Your task to perform on an android device: Go to settings Image 0: 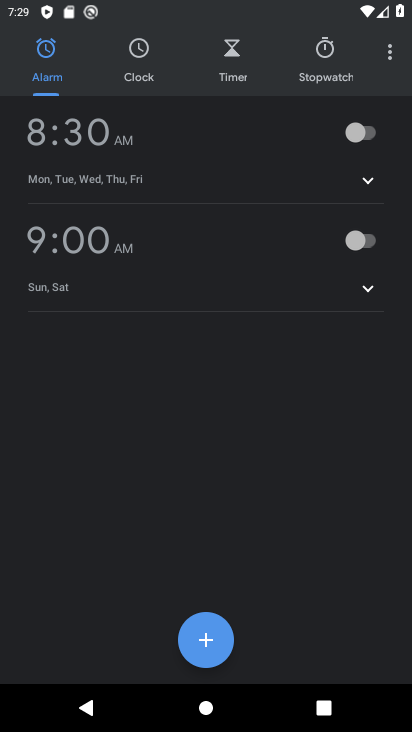
Step 0: press back button
Your task to perform on an android device: Go to settings Image 1: 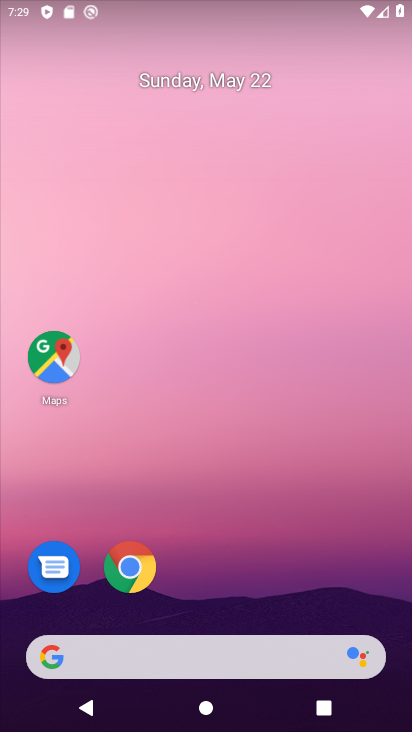
Step 1: drag from (163, 657) to (310, 127)
Your task to perform on an android device: Go to settings Image 2: 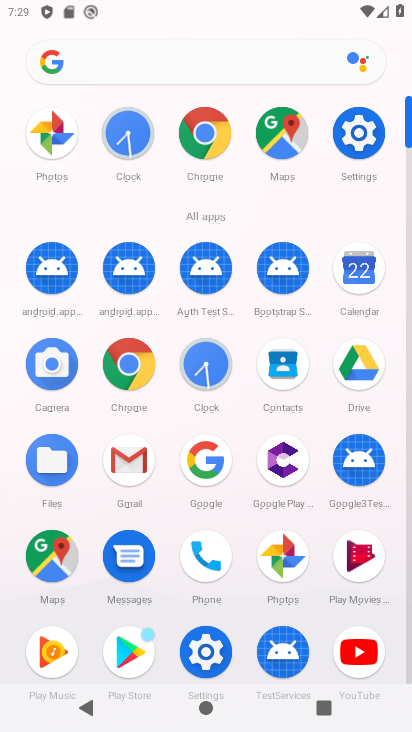
Step 2: click (361, 137)
Your task to perform on an android device: Go to settings Image 3: 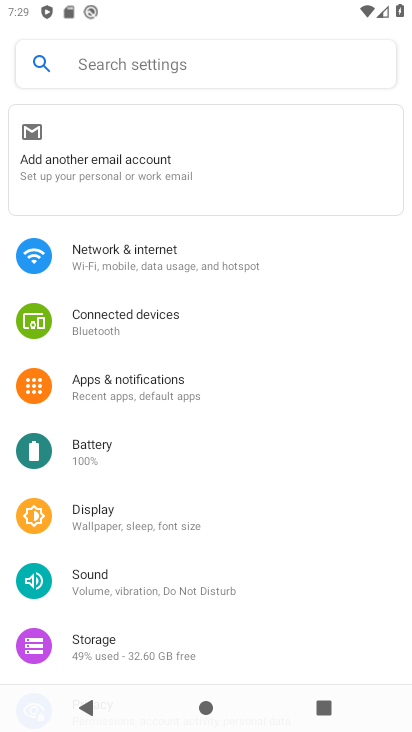
Step 3: task complete